Your task to perform on an android device: open sync settings in chrome Image 0: 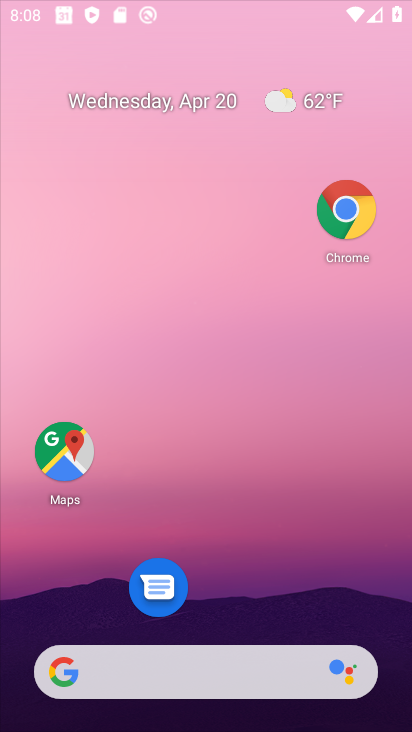
Step 0: click (220, 96)
Your task to perform on an android device: open sync settings in chrome Image 1: 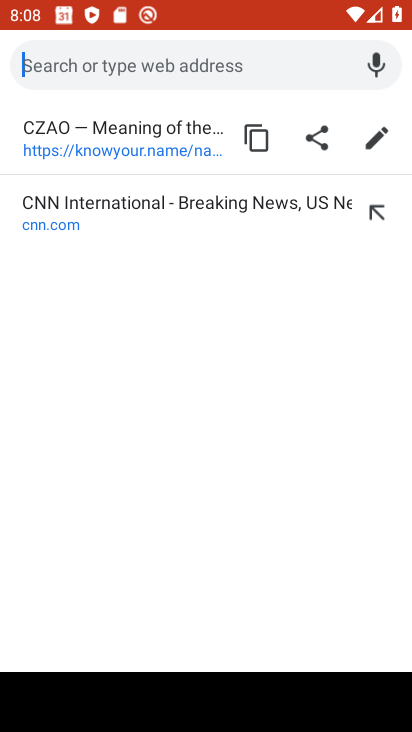
Step 1: press home button
Your task to perform on an android device: open sync settings in chrome Image 2: 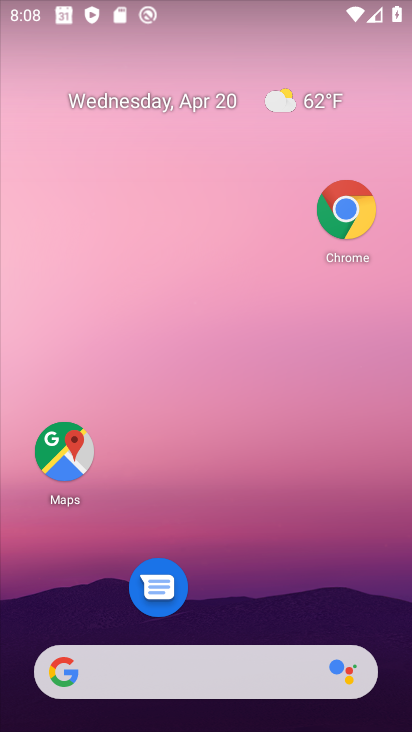
Step 2: click (347, 203)
Your task to perform on an android device: open sync settings in chrome Image 3: 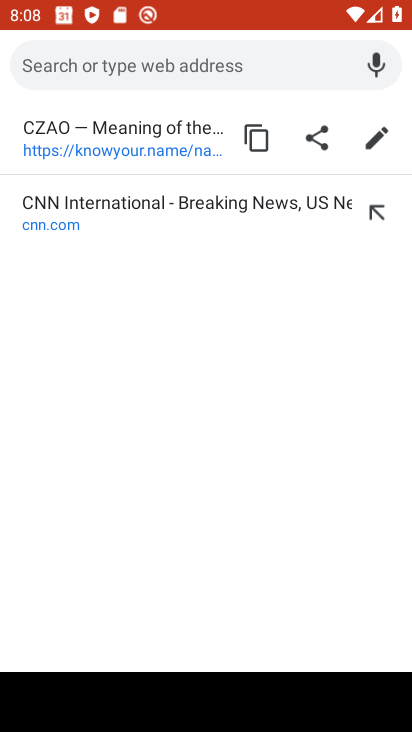
Step 3: press back button
Your task to perform on an android device: open sync settings in chrome Image 4: 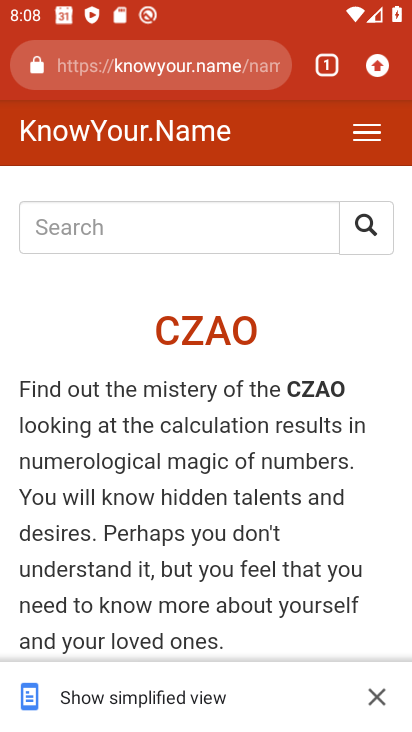
Step 4: click (392, 54)
Your task to perform on an android device: open sync settings in chrome Image 5: 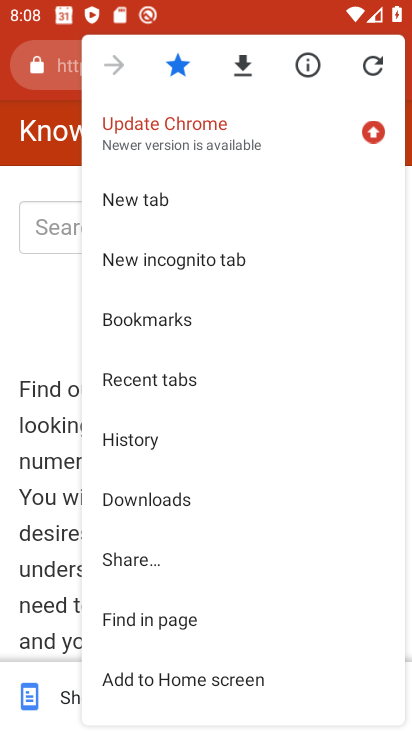
Step 5: drag from (151, 655) to (323, 133)
Your task to perform on an android device: open sync settings in chrome Image 6: 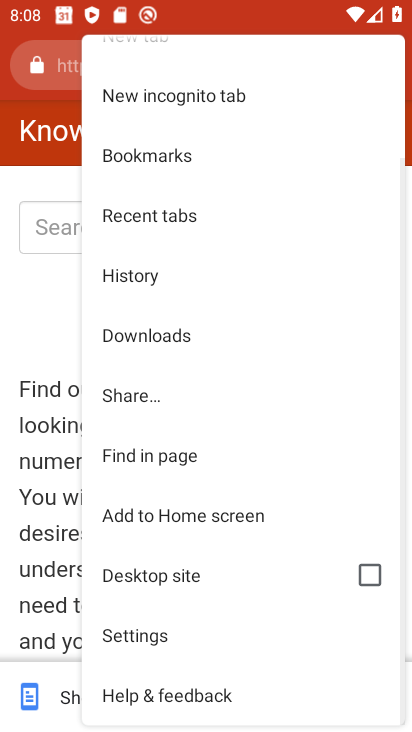
Step 6: click (157, 614)
Your task to perform on an android device: open sync settings in chrome Image 7: 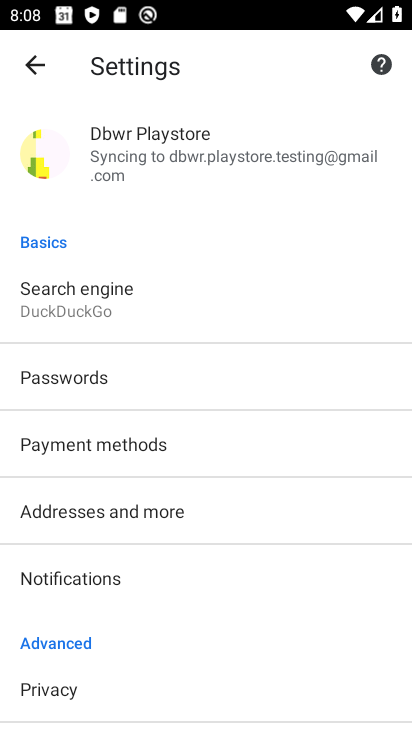
Step 7: click (205, 179)
Your task to perform on an android device: open sync settings in chrome Image 8: 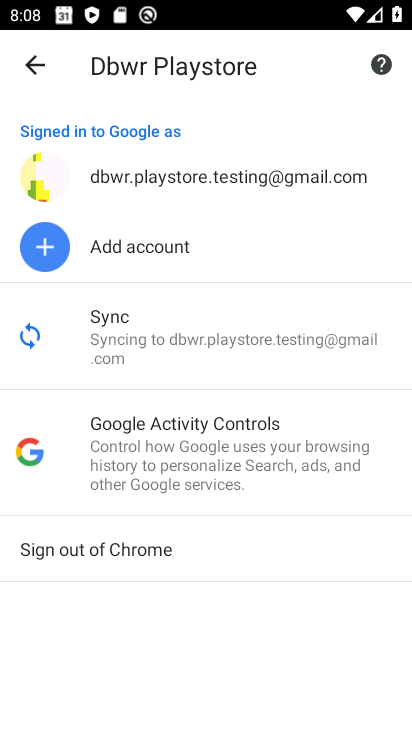
Step 8: click (220, 321)
Your task to perform on an android device: open sync settings in chrome Image 9: 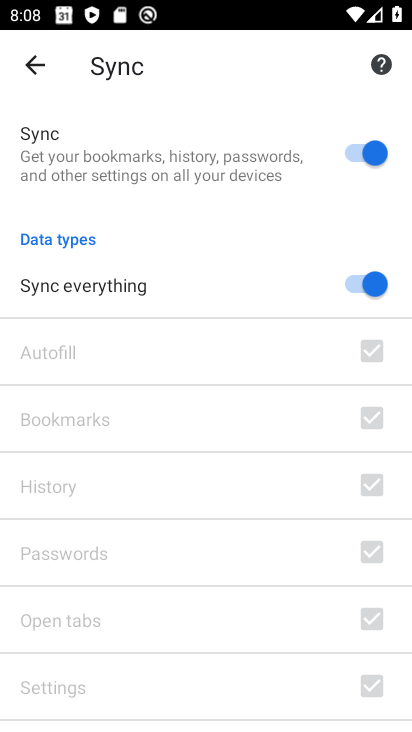
Step 9: task complete